Your task to perform on an android device: Show me productivity apps on the Play Store Image 0: 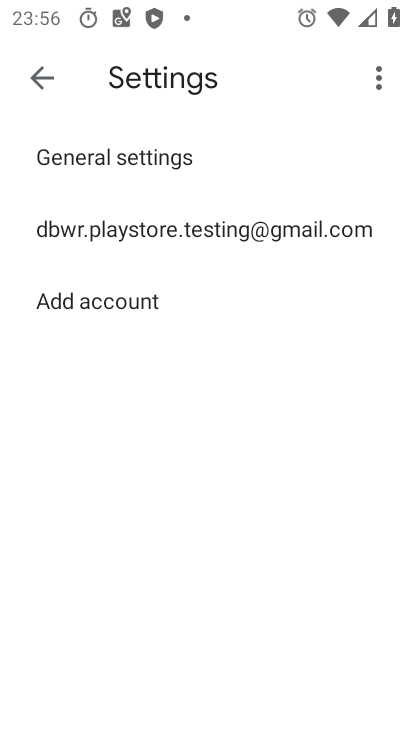
Step 0: press home button
Your task to perform on an android device: Show me productivity apps on the Play Store Image 1: 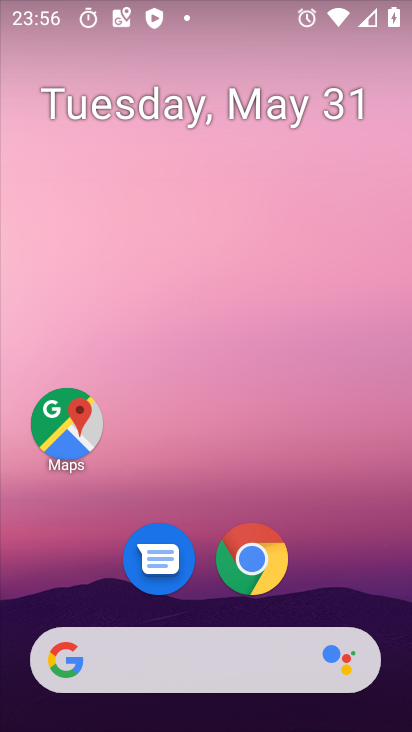
Step 1: drag from (309, 582) to (363, 16)
Your task to perform on an android device: Show me productivity apps on the Play Store Image 2: 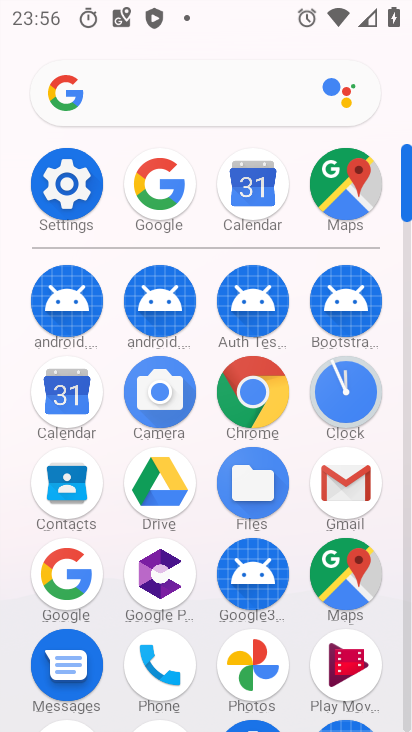
Step 2: drag from (194, 622) to (216, 179)
Your task to perform on an android device: Show me productivity apps on the Play Store Image 3: 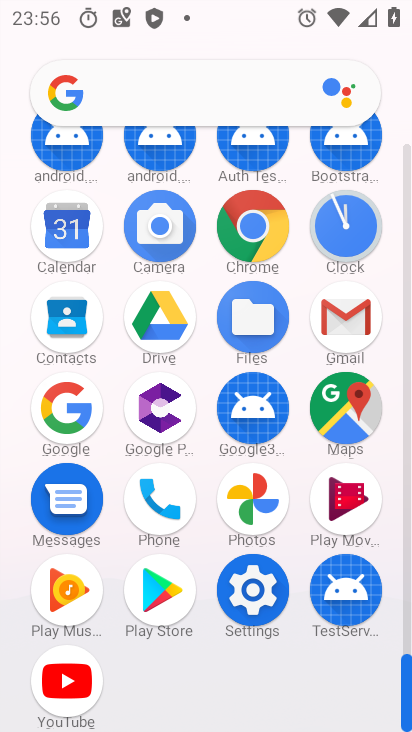
Step 3: click (161, 606)
Your task to perform on an android device: Show me productivity apps on the Play Store Image 4: 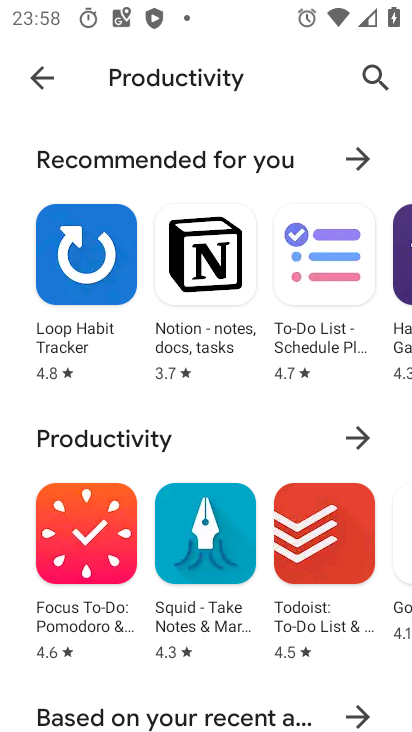
Step 4: task complete